Your task to perform on an android device: Open calendar and show me the fourth week of next month Image 0: 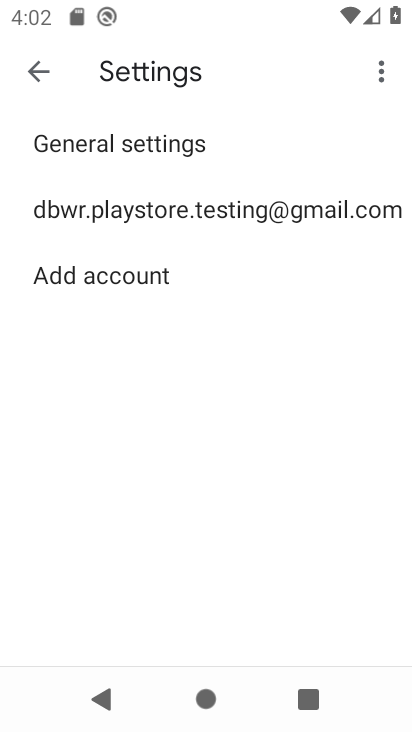
Step 0: press home button
Your task to perform on an android device: Open calendar and show me the fourth week of next month Image 1: 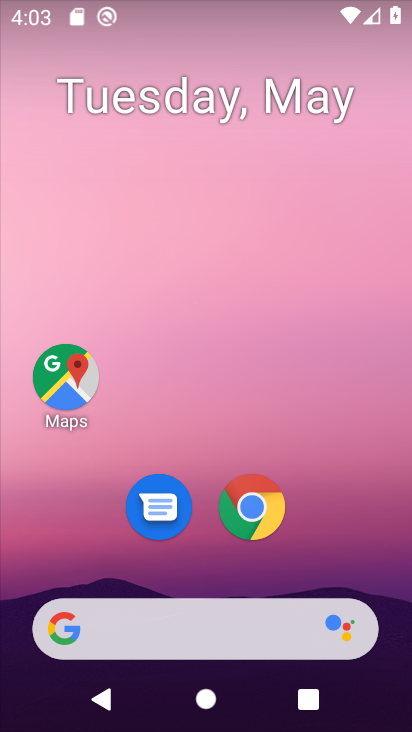
Step 1: drag from (205, 570) to (110, 110)
Your task to perform on an android device: Open calendar and show me the fourth week of next month Image 2: 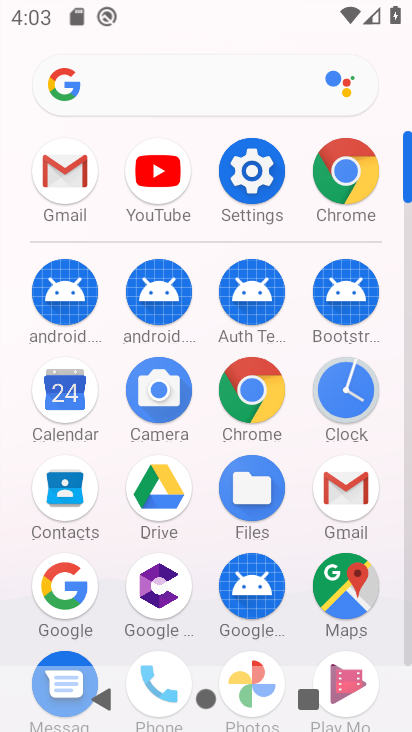
Step 2: click (85, 398)
Your task to perform on an android device: Open calendar and show me the fourth week of next month Image 3: 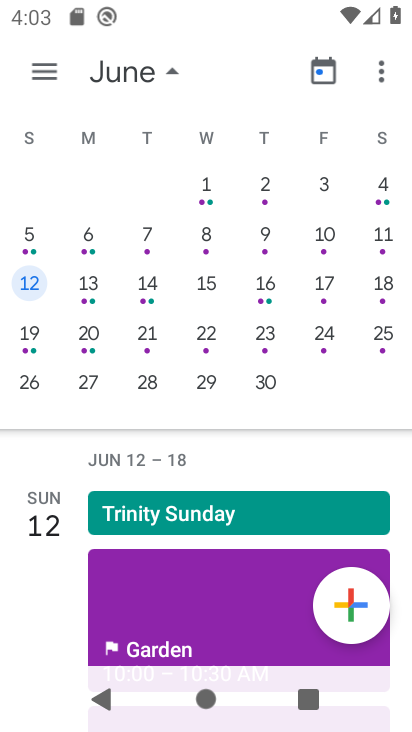
Step 3: click (26, 344)
Your task to perform on an android device: Open calendar and show me the fourth week of next month Image 4: 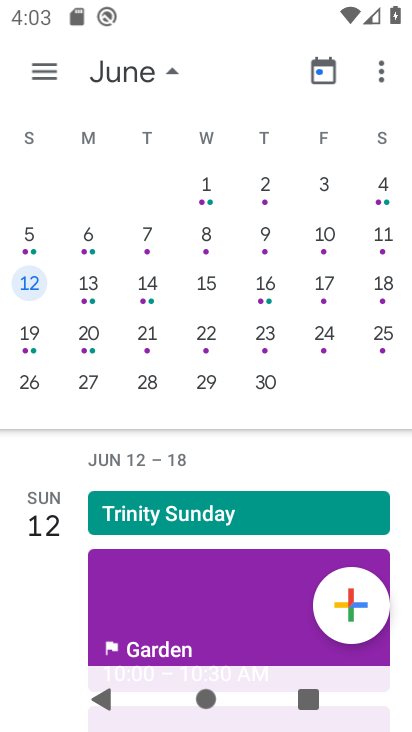
Step 4: click (33, 349)
Your task to perform on an android device: Open calendar and show me the fourth week of next month Image 5: 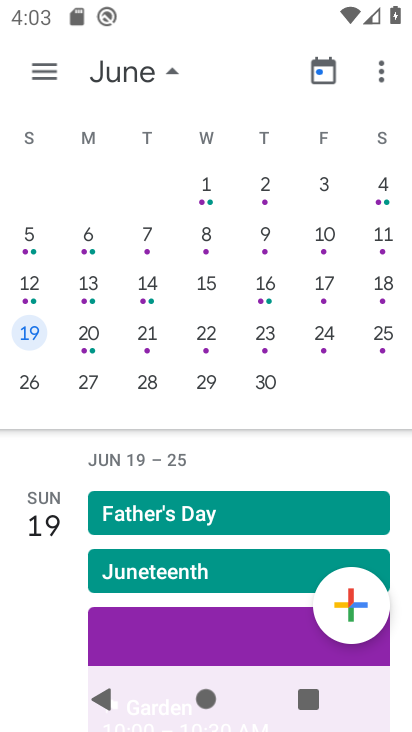
Step 5: task complete